Your task to perform on an android device: empty trash in the gmail app Image 0: 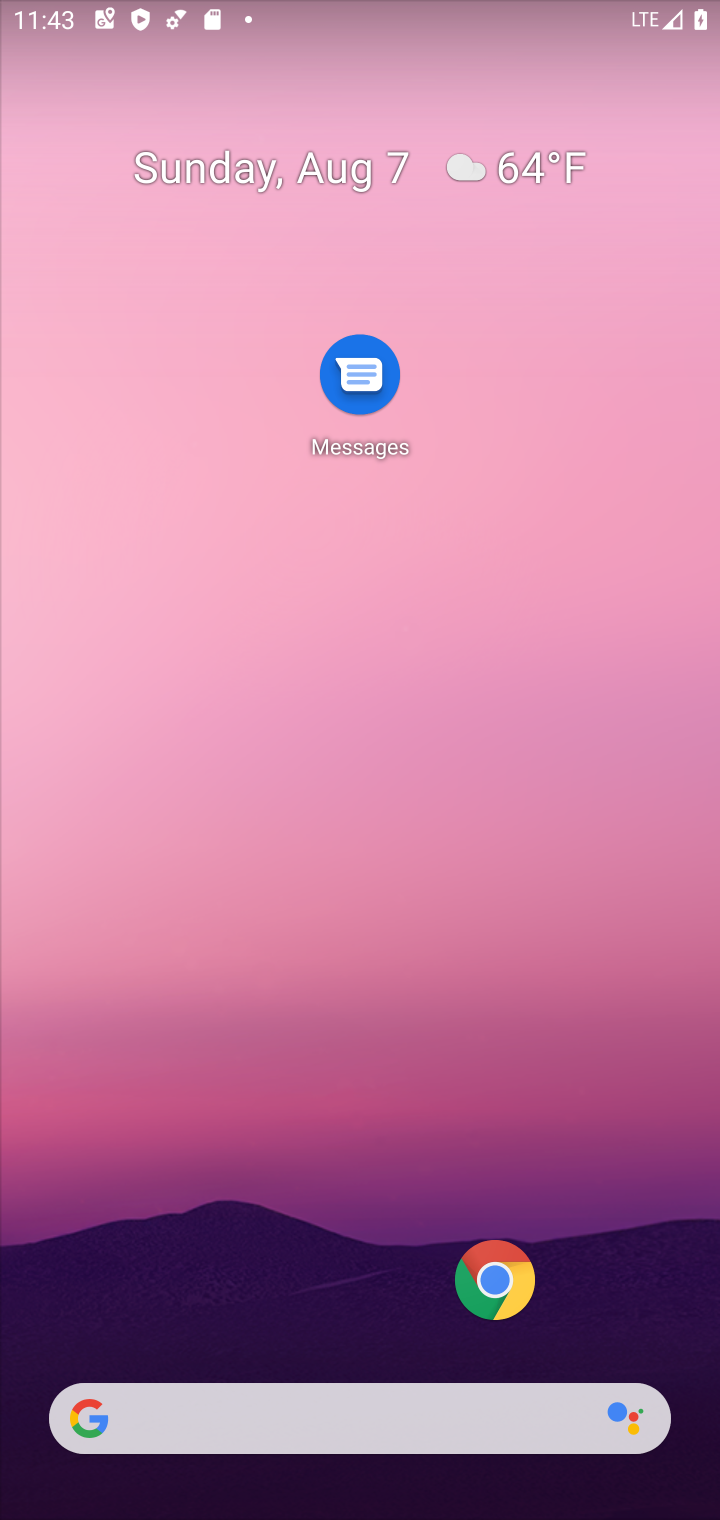
Step 0: drag from (342, 985) to (489, 233)
Your task to perform on an android device: empty trash in the gmail app Image 1: 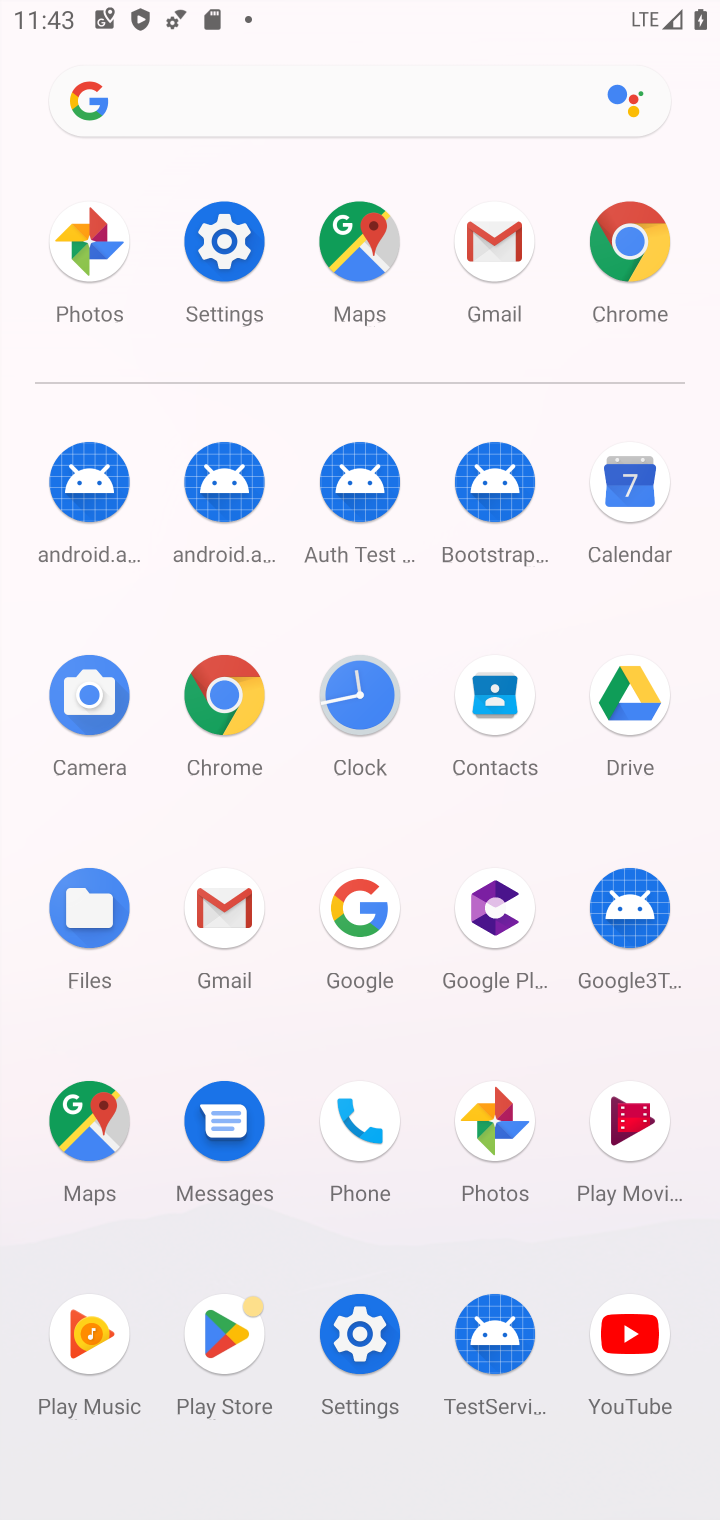
Step 1: click (526, 264)
Your task to perform on an android device: empty trash in the gmail app Image 2: 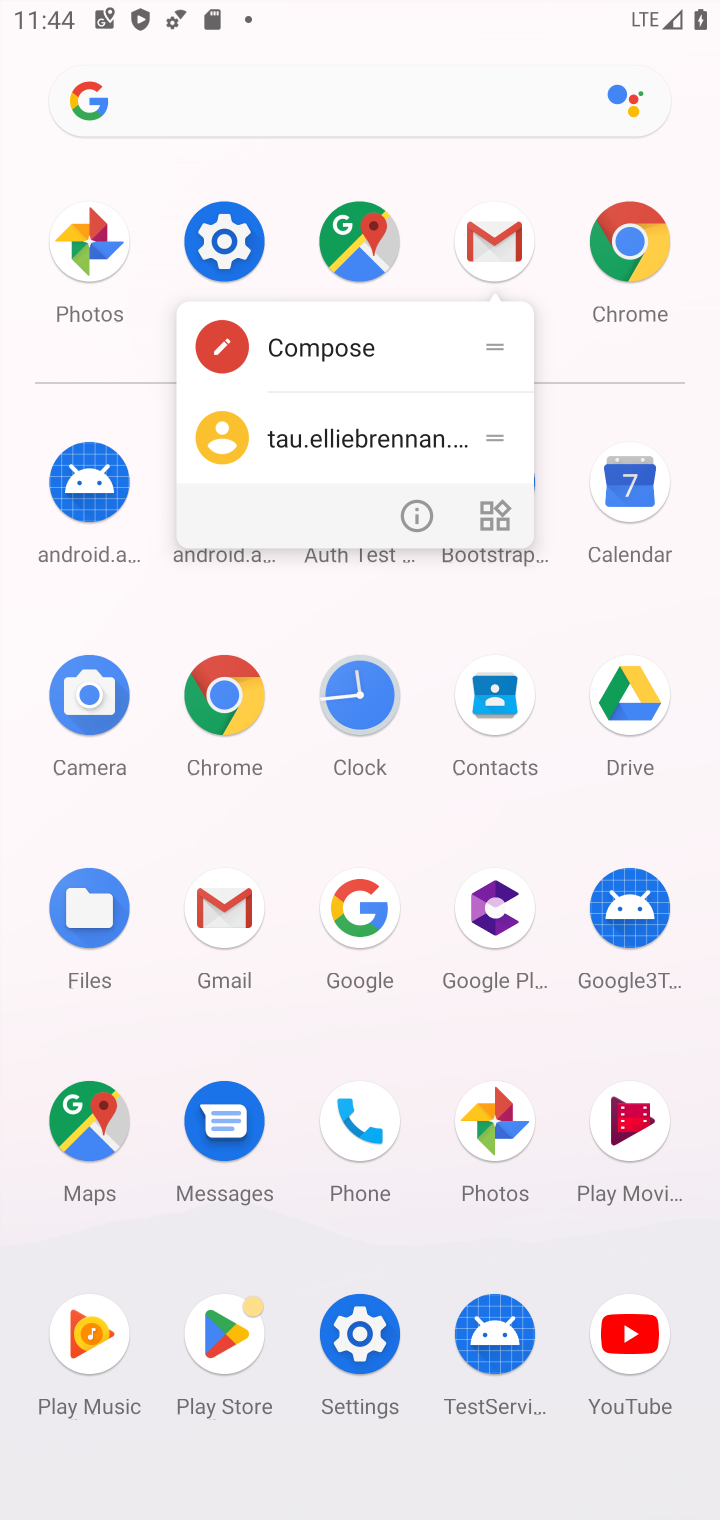
Step 2: click (490, 221)
Your task to perform on an android device: empty trash in the gmail app Image 3: 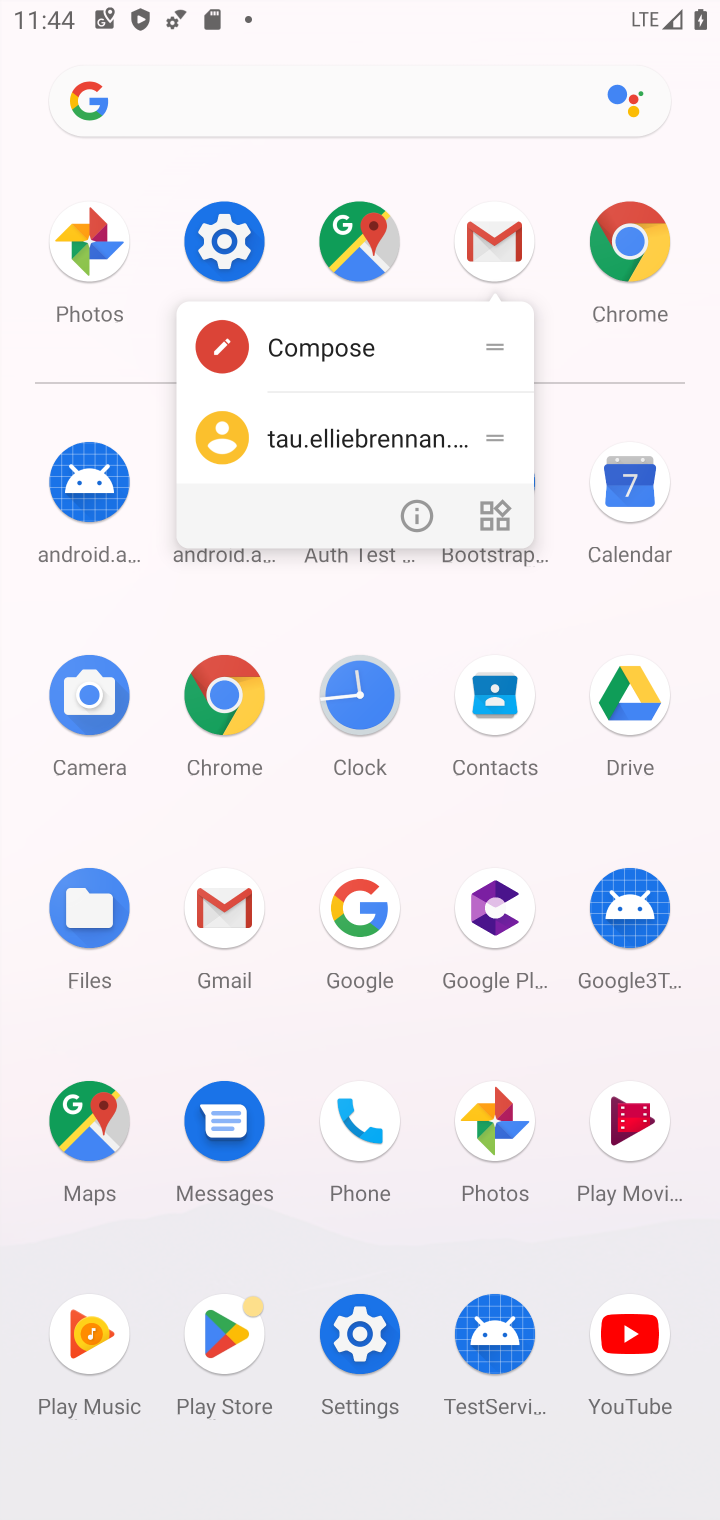
Step 3: click (492, 239)
Your task to perform on an android device: empty trash in the gmail app Image 4: 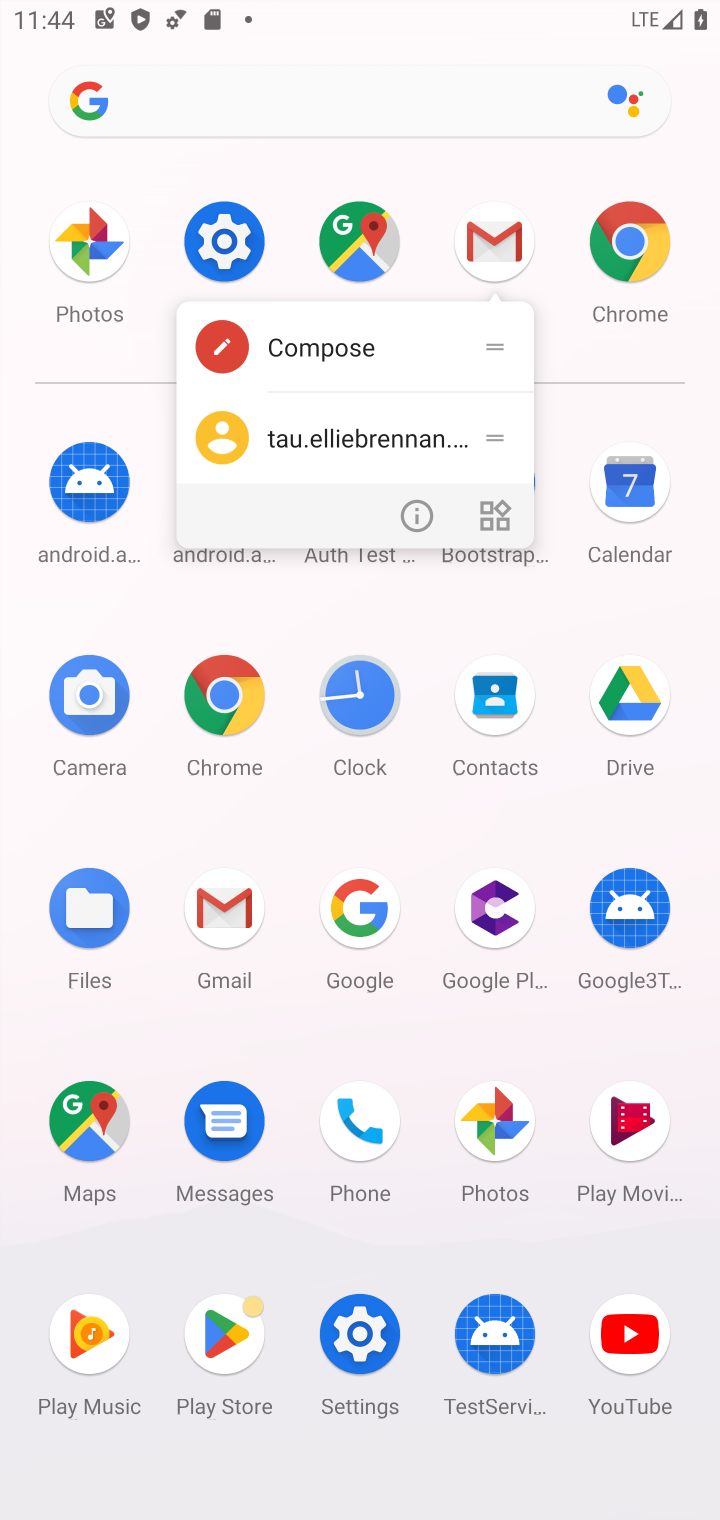
Step 4: click (492, 239)
Your task to perform on an android device: empty trash in the gmail app Image 5: 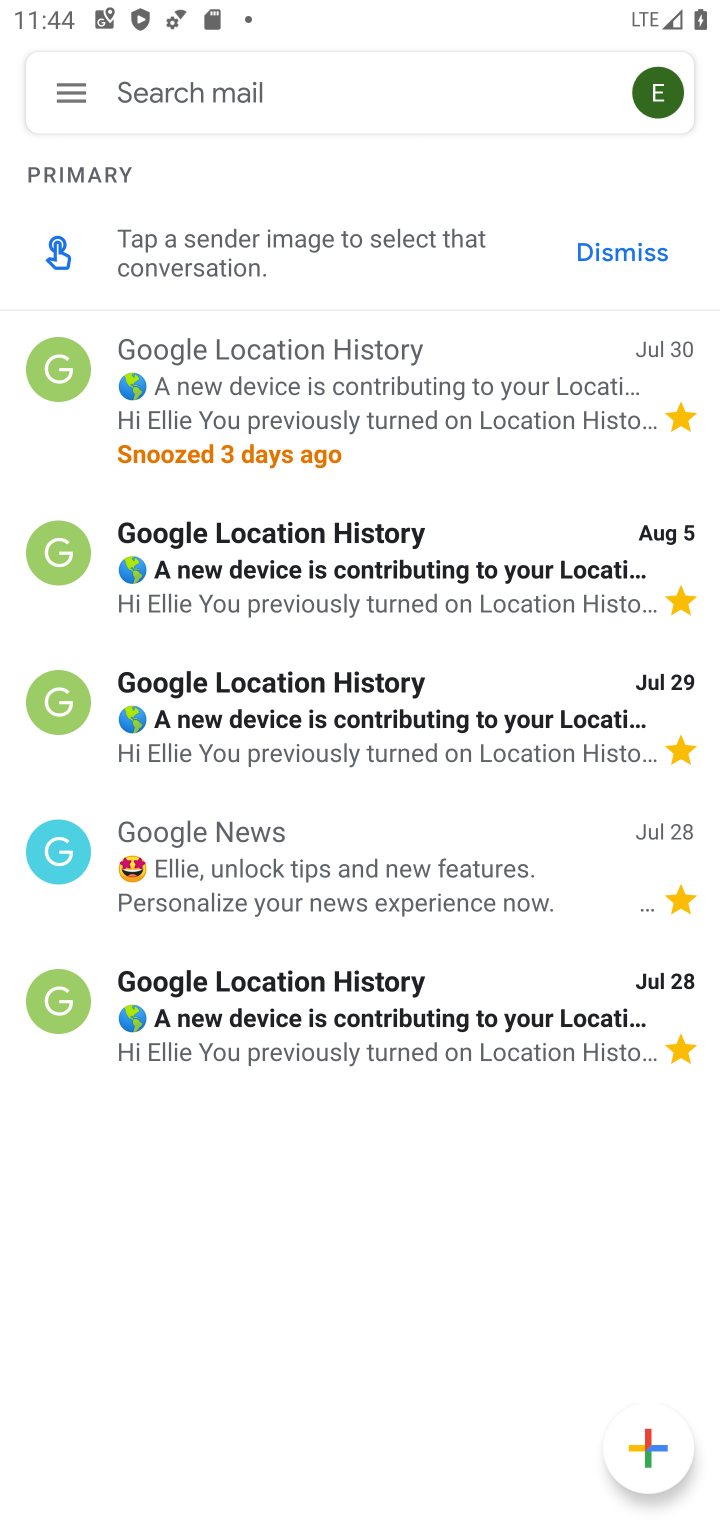
Step 5: click (70, 84)
Your task to perform on an android device: empty trash in the gmail app Image 6: 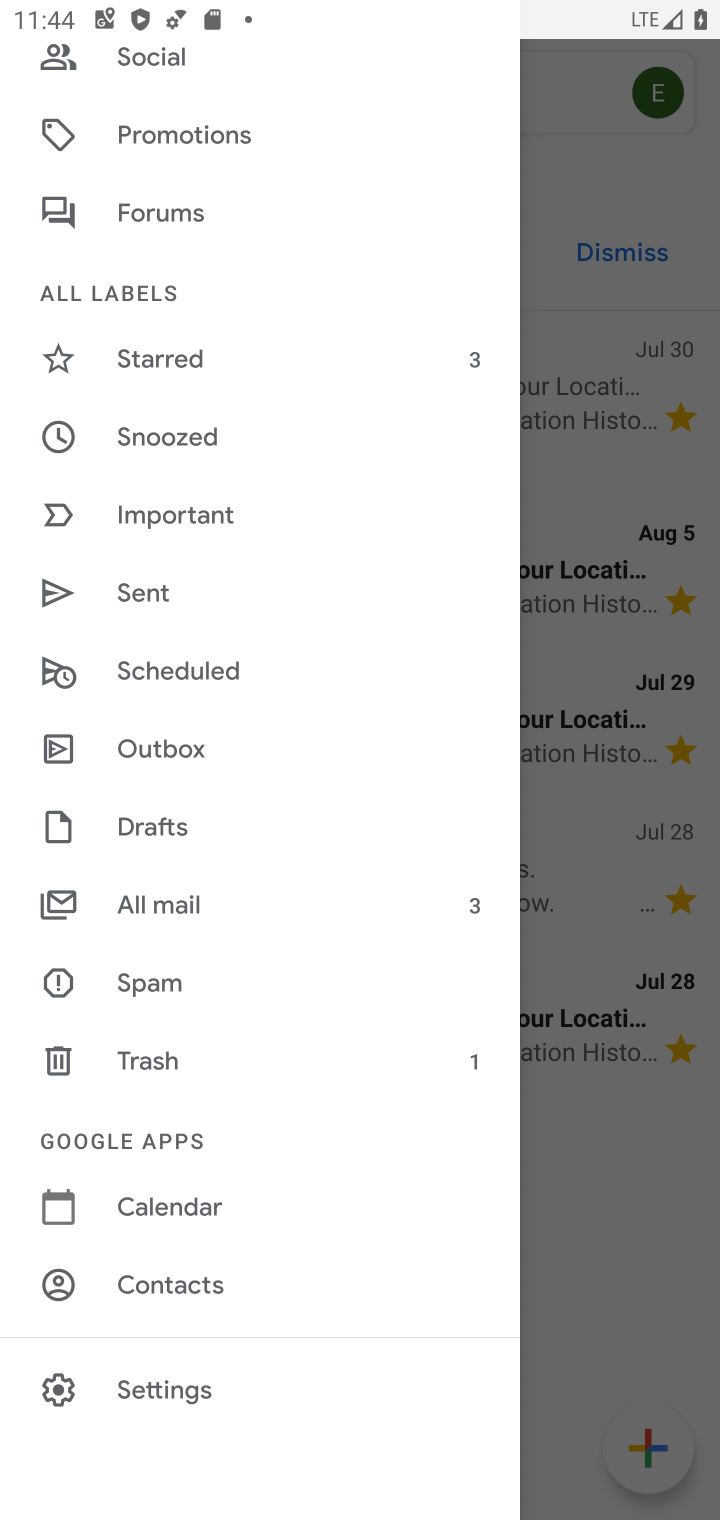
Step 6: click (201, 1071)
Your task to perform on an android device: empty trash in the gmail app Image 7: 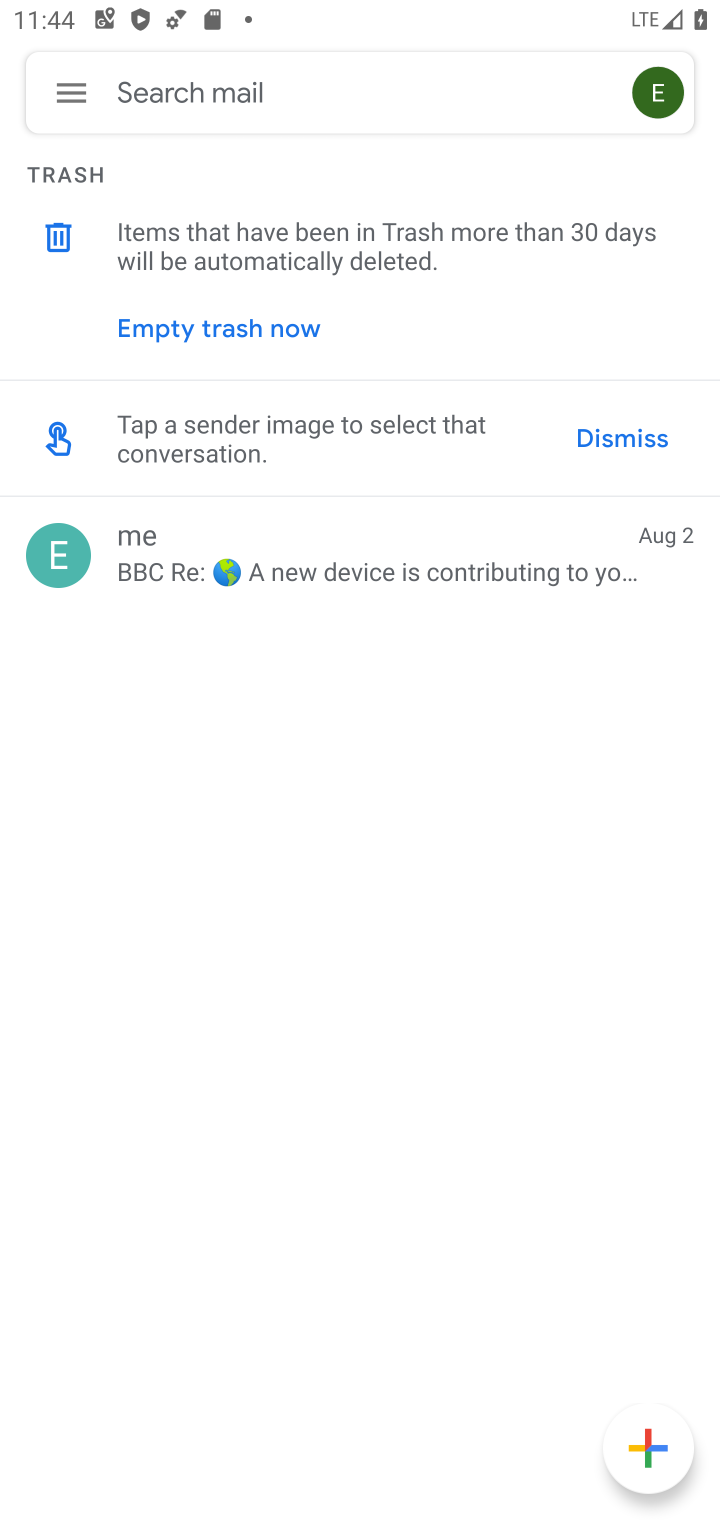
Step 7: click (217, 333)
Your task to perform on an android device: empty trash in the gmail app Image 8: 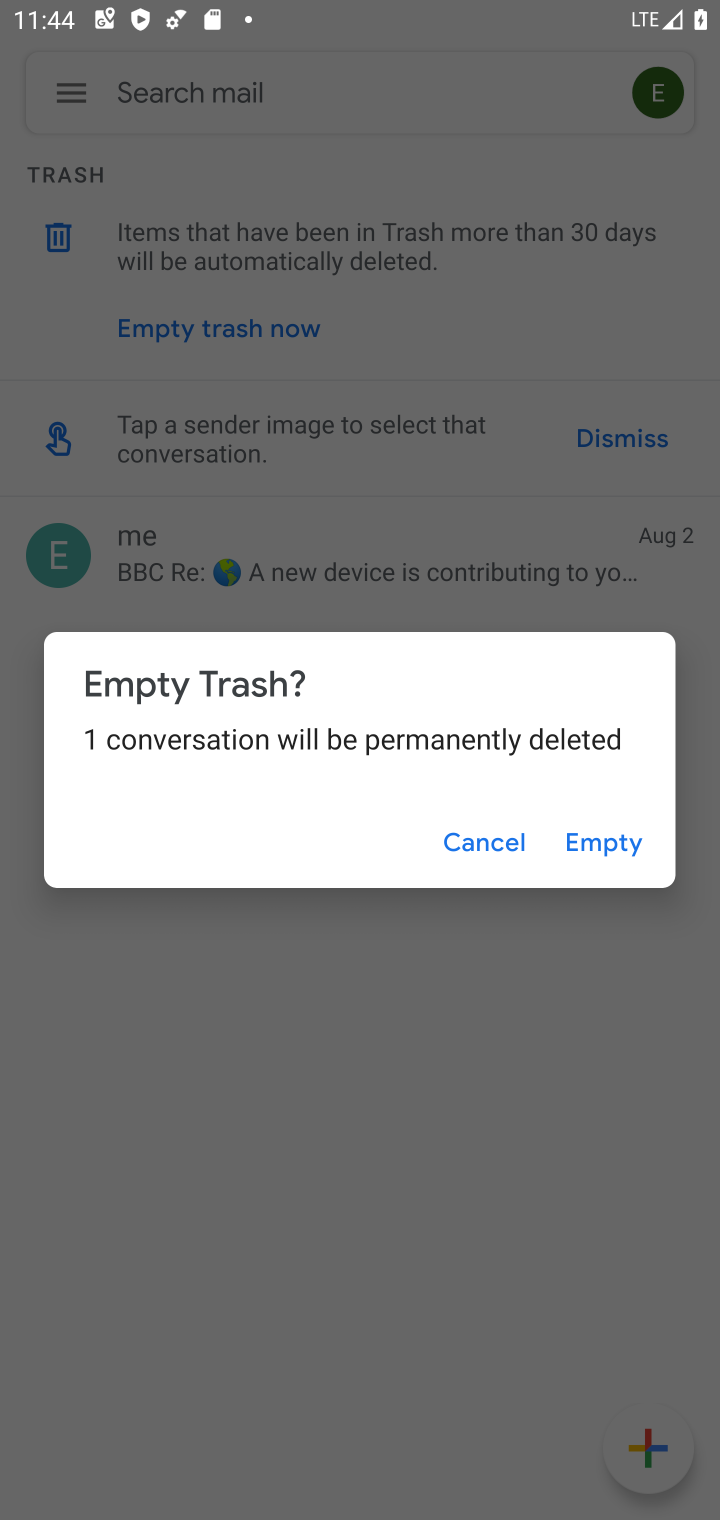
Step 8: click (593, 836)
Your task to perform on an android device: empty trash in the gmail app Image 9: 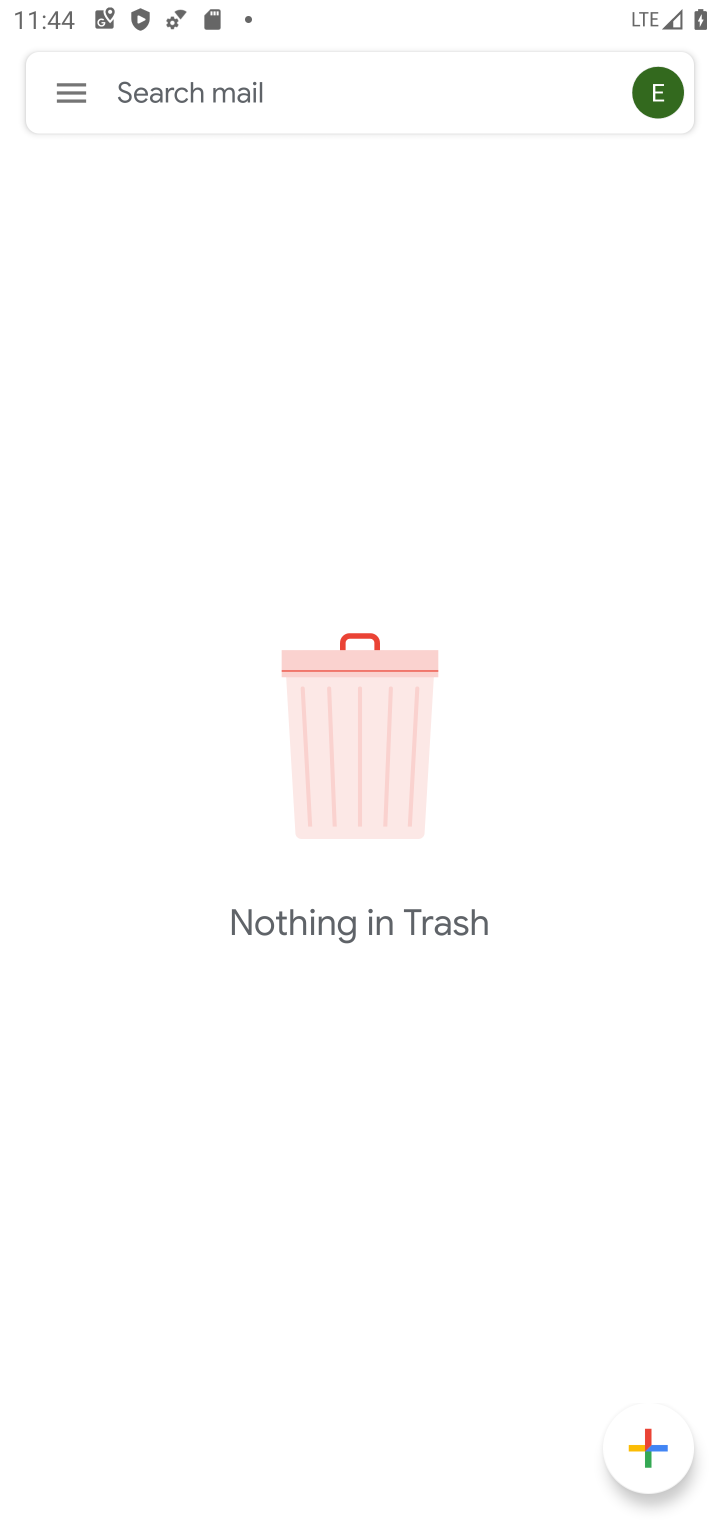
Step 9: task complete